Your task to perform on an android device: Go to Google maps Image 0: 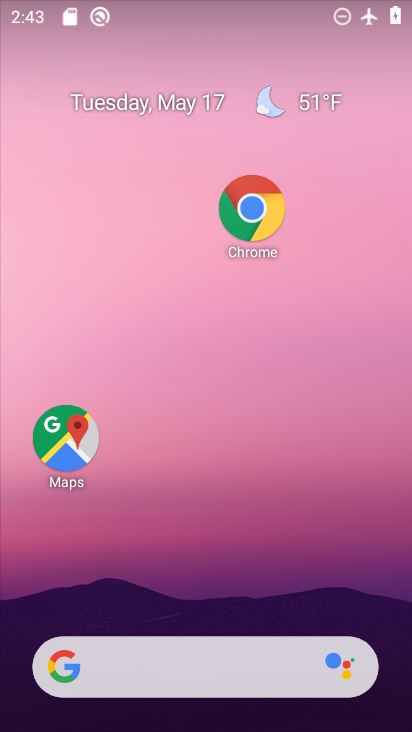
Step 0: click (54, 439)
Your task to perform on an android device: Go to Google maps Image 1: 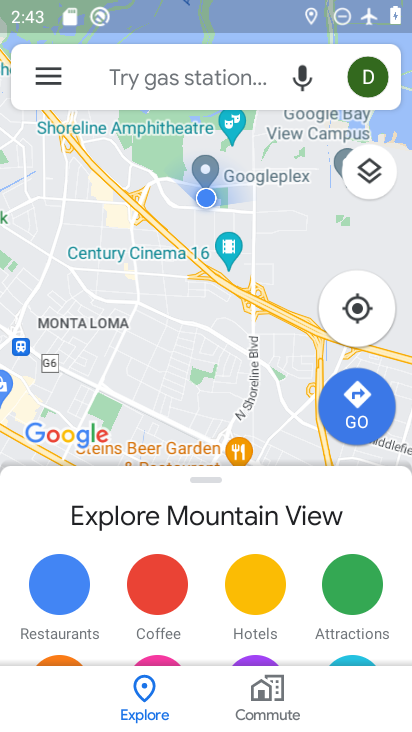
Step 1: task complete